Your task to perform on an android device: Open Wikipedia Image 0: 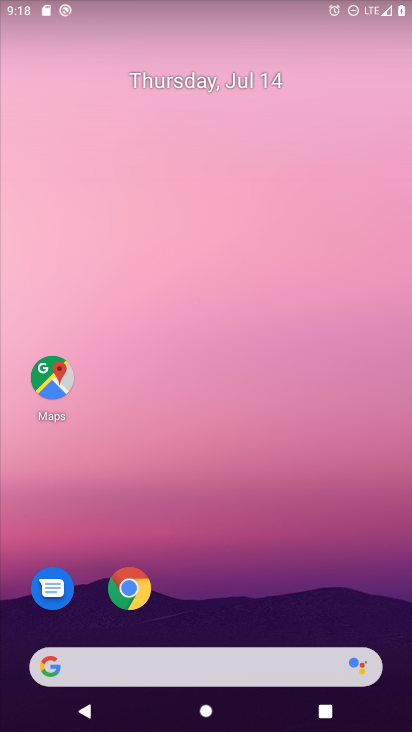
Step 0: drag from (285, 622) to (319, 71)
Your task to perform on an android device: Open Wikipedia Image 1: 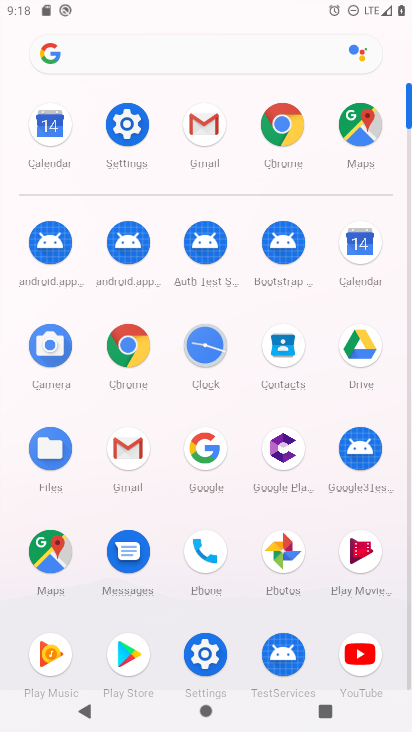
Step 1: click (261, 131)
Your task to perform on an android device: Open Wikipedia Image 2: 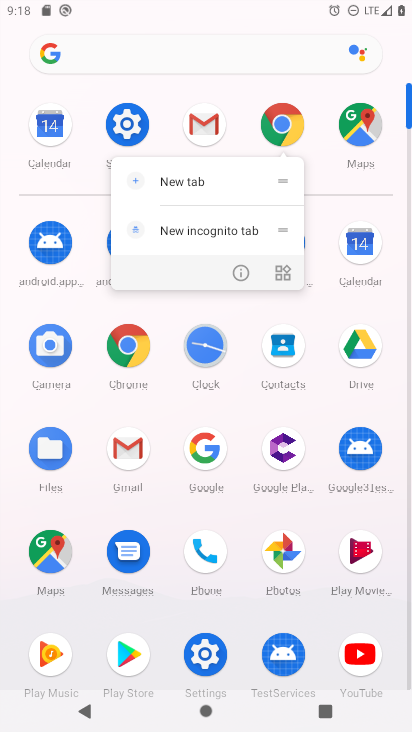
Step 2: click (264, 131)
Your task to perform on an android device: Open Wikipedia Image 3: 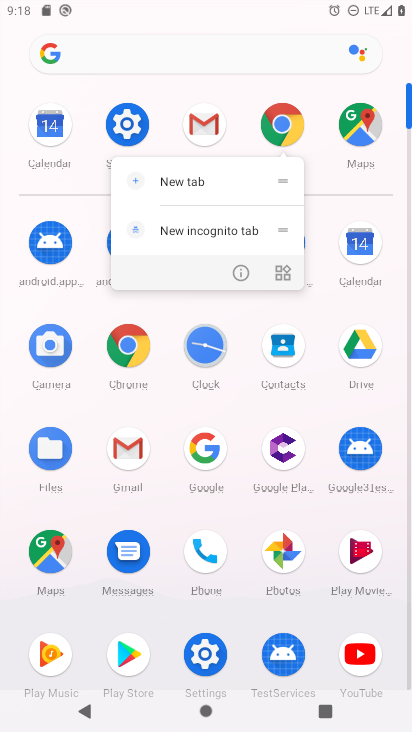
Step 3: click (264, 131)
Your task to perform on an android device: Open Wikipedia Image 4: 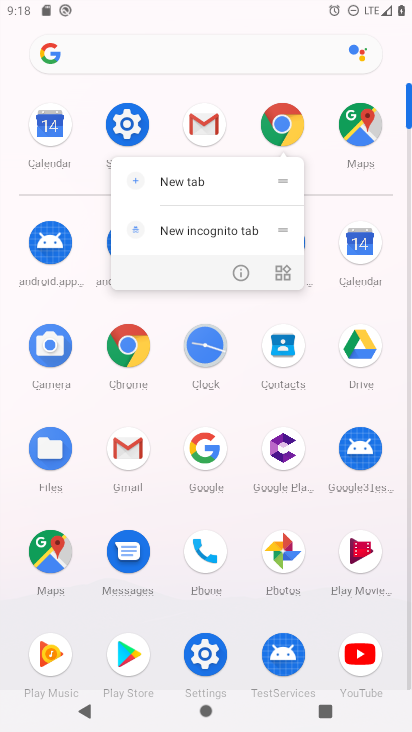
Step 4: click (280, 113)
Your task to perform on an android device: Open Wikipedia Image 5: 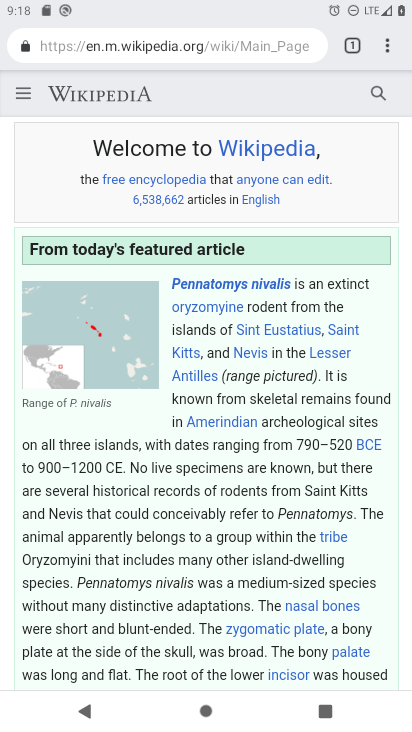
Step 5: task complete